Your task to perform on an android device: check storage Image 0: 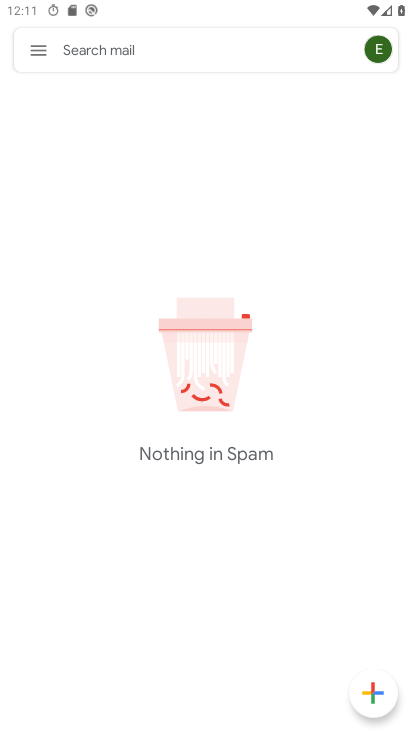
Step 0: press home button
Your task to perform on an android device: check storage Image 1: 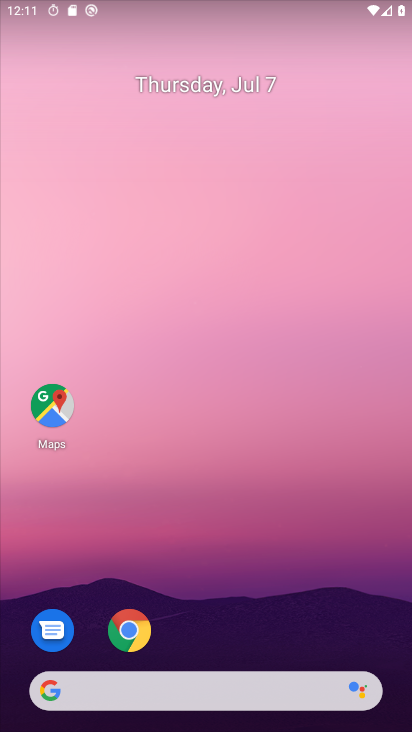
Step 1: drag from (240, 661) to (267, 202)
Your task to perform on an android device: check storage Image 2: 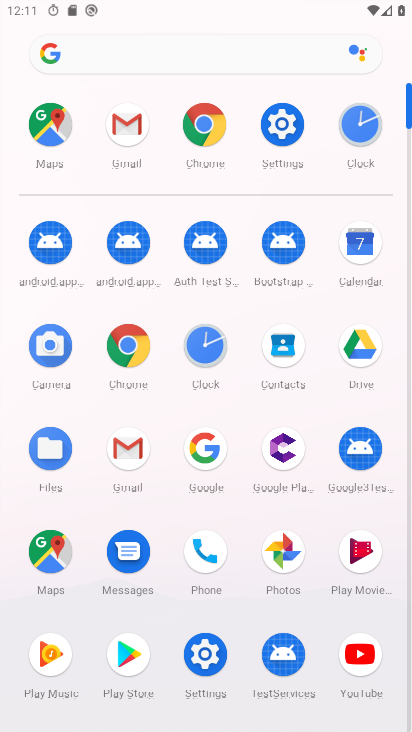
Step 2: click (208, 659)
Your task to perform on an android device: check storage Image 3: 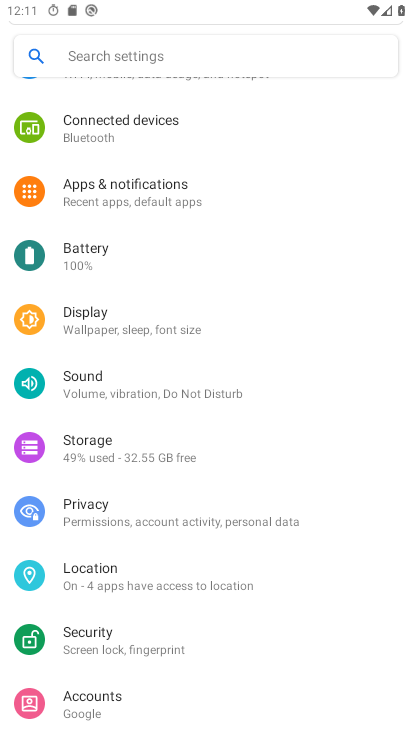
Step 3: click (157, 451)
Your task to perform on an android device: check storage Image 4: 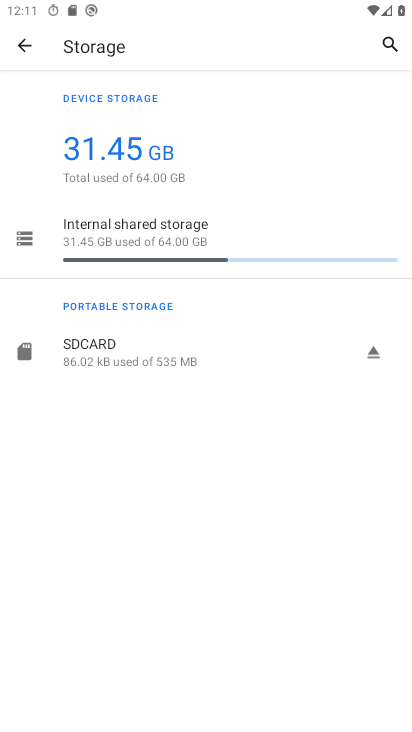
Step 4: click (174, 246)
Your task to perform on an android device: check storage Image 5: 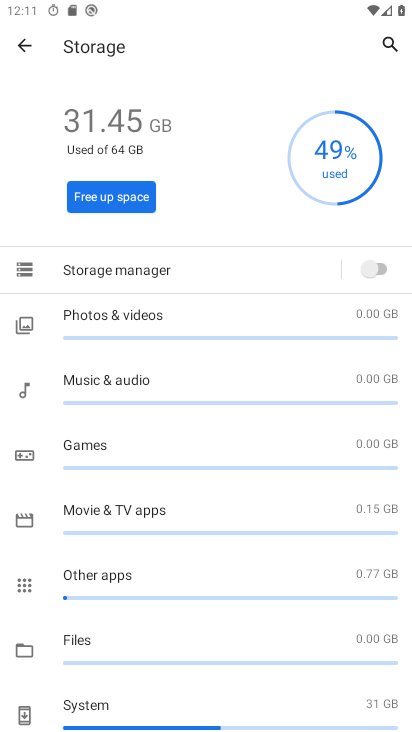
Step 5: task complete